Your task to perform on an android device: Open Google Chrome Image 0: 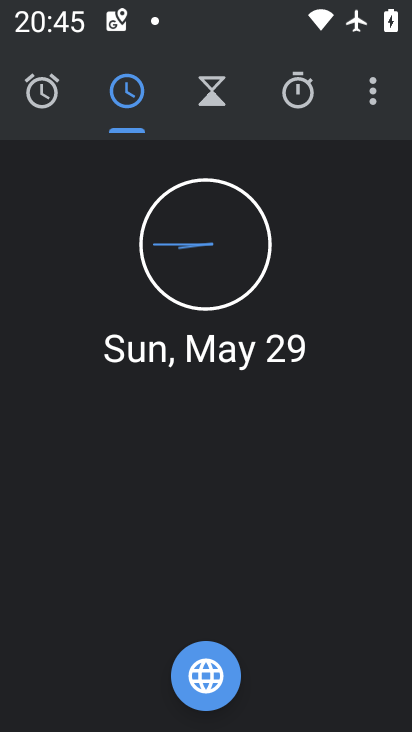
Step 0: click (316, 479)
Your task to perform on an android device: Open Google Chrome Image 1: 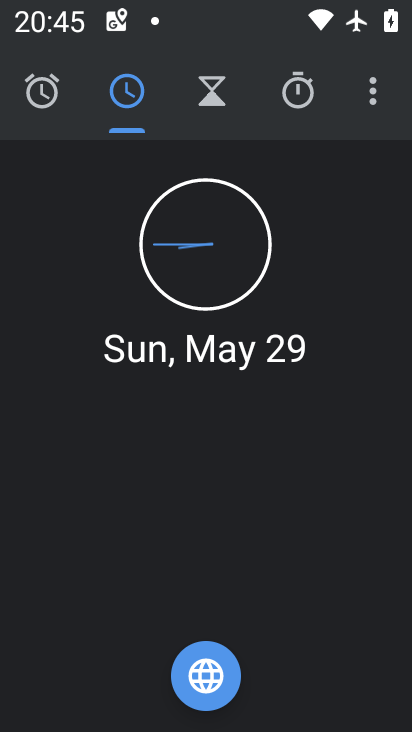
Step 1: click (347, 451)
Your task to perform on an android device: Open Google Chrome Image 2: 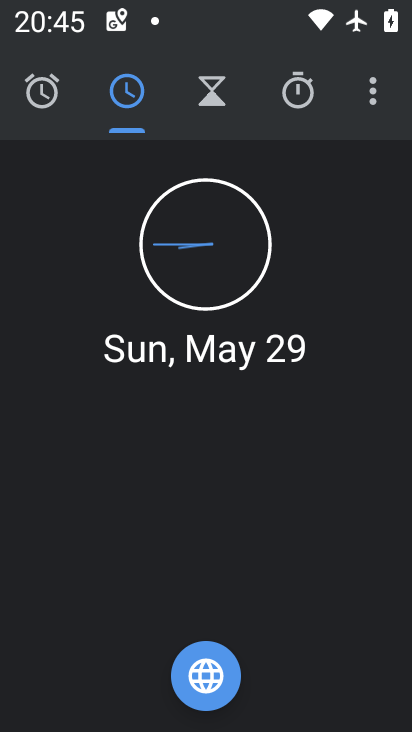
Step 2: task complete